Your task to perform on an android device: See recent photos Image 0: 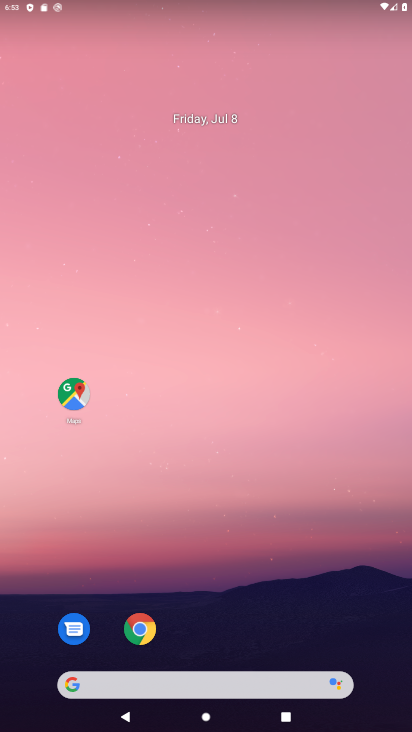
Step 0: drag from (178, 692) to (103, 5)
Your task to perform on an android device: See recent photos Image 1: 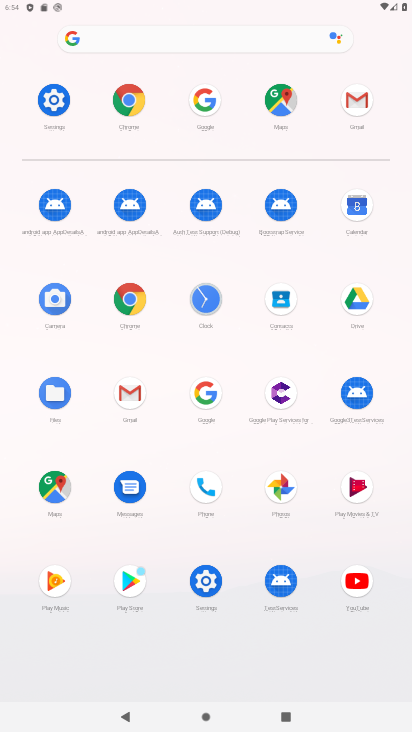
Step 1: click (285, 494)
Your task to perform on an android device: See recent photos Image 2: 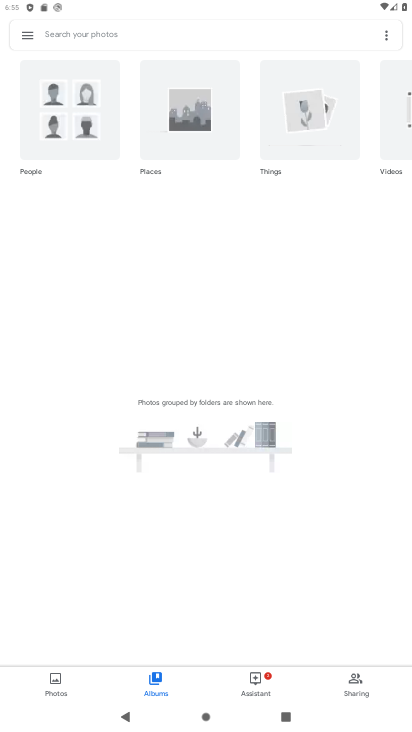
Step 2: click (42, 687)
Your task to perform on an android device: See recent photos Image 3: 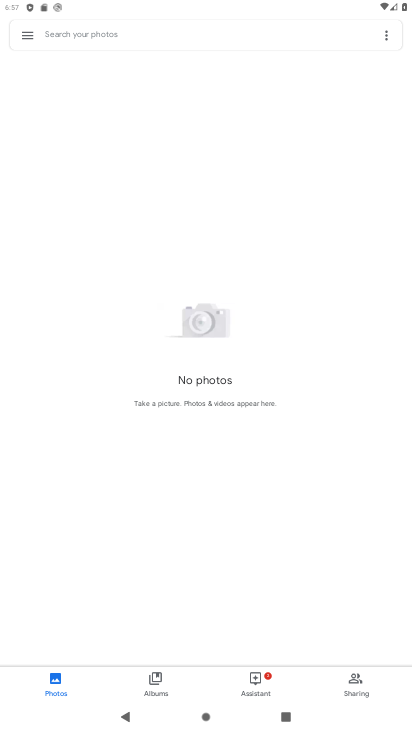
Step 3: task complete